Your task to perform on an android device: check android version Image 0: 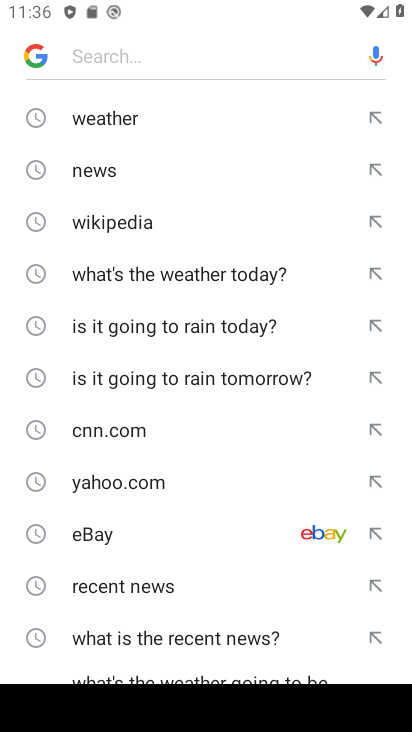
Step 0: press back button
Your task to perform on an android device: check android version Image 1: 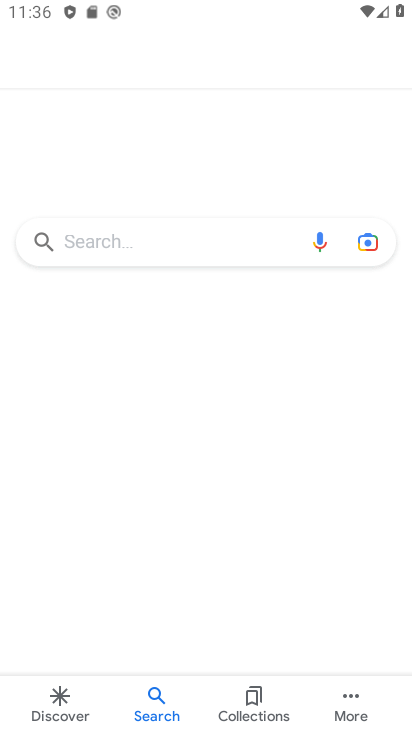
Step 1: press home button
Your task to perform on an android device: check android version Image 2: 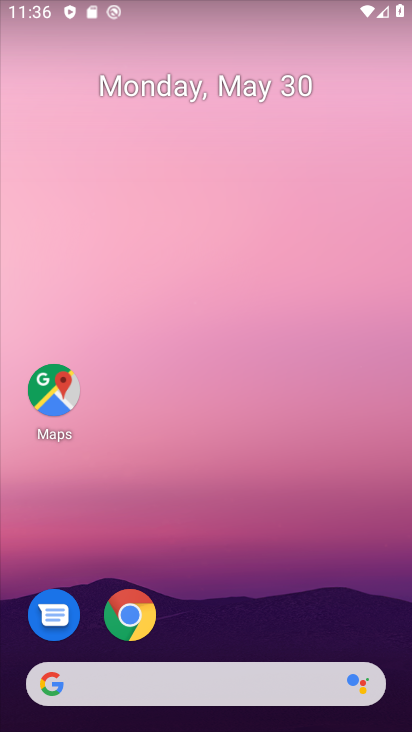
Step 2: drag from (345, 340) to (347, 98)
Your task to perform on an android device: check android version Image 3: 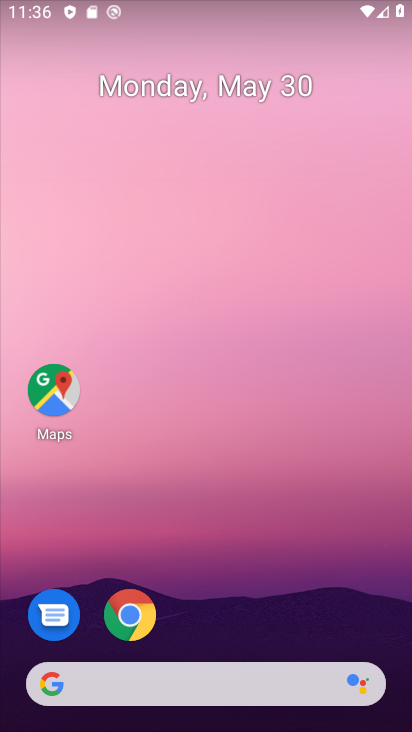
Step 3: drag from (302, 602) to (369, 113)
Your task to perform on an android device: check android version Image 4: 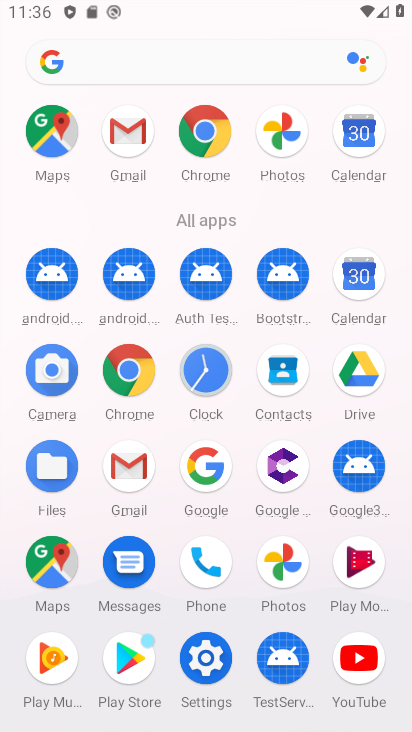
Step 4: click (222, 670)
Your task to perform on an android device: check android version Image 5: 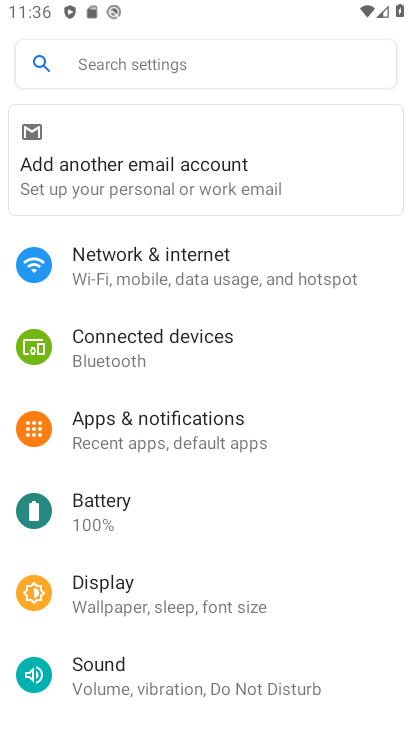
Step 5: drag from (358, 513) to (376, 356)
Your task to perform on an android device: check android version Image 6: 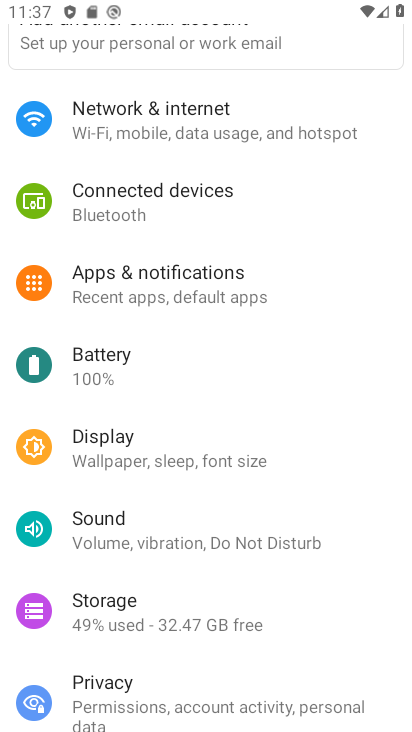
Step 6: drag from (373, 635) to (366, 415)
Your task to perform on an android device: check android version Image 7: 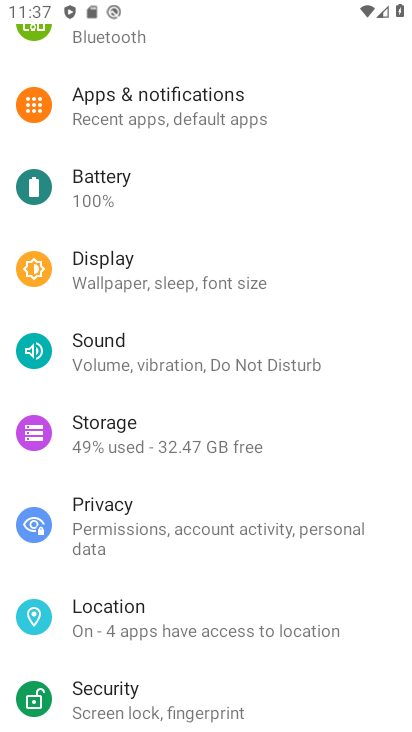
Step 7: drag from (356, 586) to (361, 390)
Your task to perform on an android device: check android version Image 8: 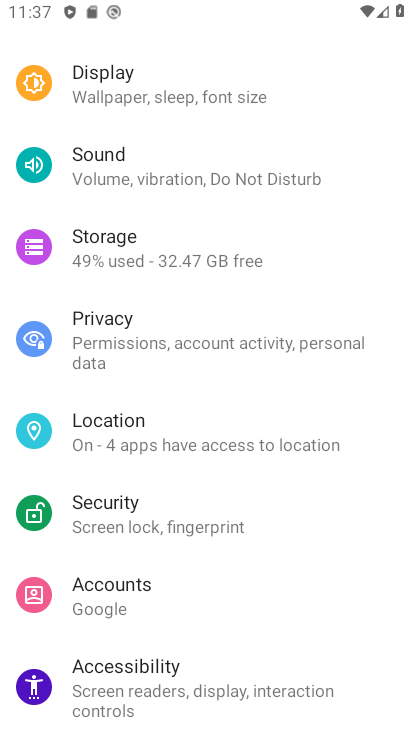
Step 8: drag from (339, 592) to (344, 443)
Your task to perform on an android device: check android version Image 9: 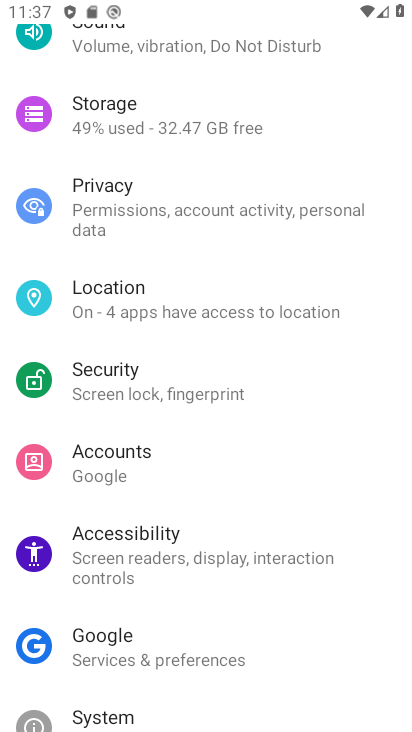
Step 9: drag from (344, 631) to (352, 448)
Your task to perform on an android device: check android version Image 10: 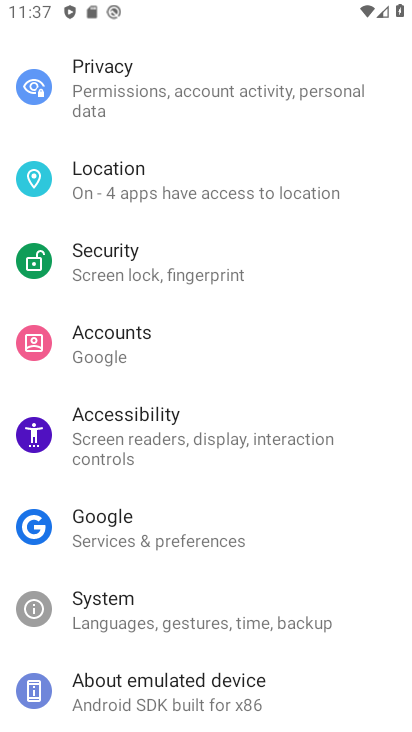
Step 10: drag from (349, 650) to (368, 406)
Your task to perform on an android device: check android version Image 11: 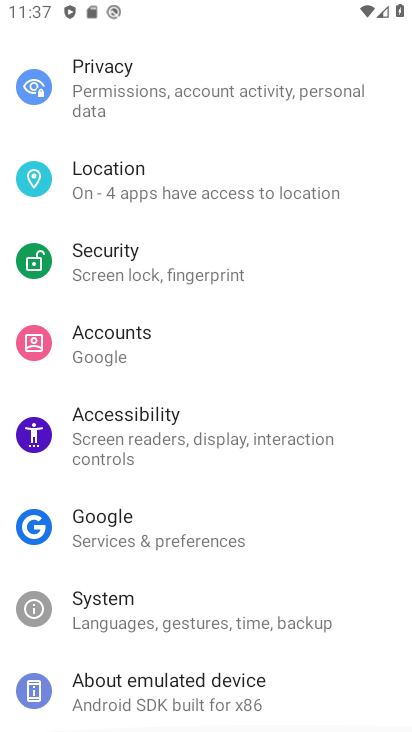
Step 11: drag from (376, 356) to (357, 506)
Your task to perform on an android device: check android version Image 12: 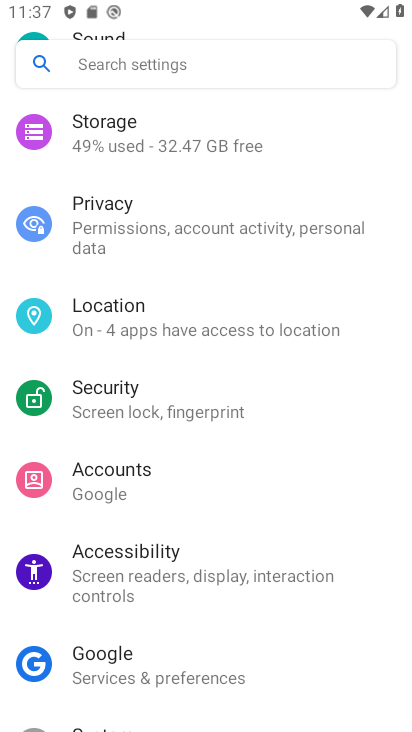
Step 12: drag from (355, 631) to (356, 402)
Your task to perform on an android device: check android version Image 13: 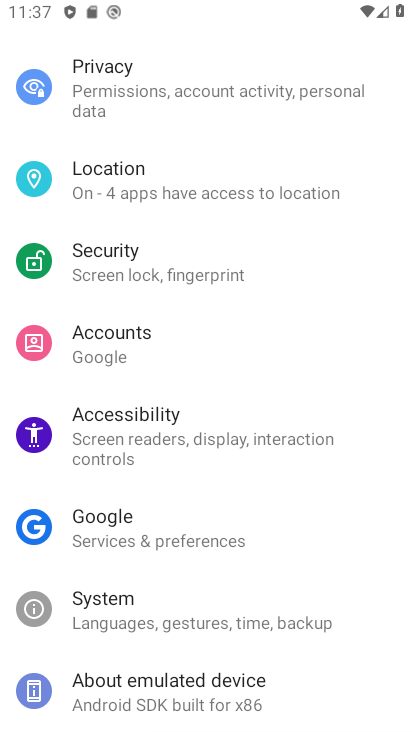
Step 13: click (281, 606)
Your task to perform on an android device: check android version Image 14: 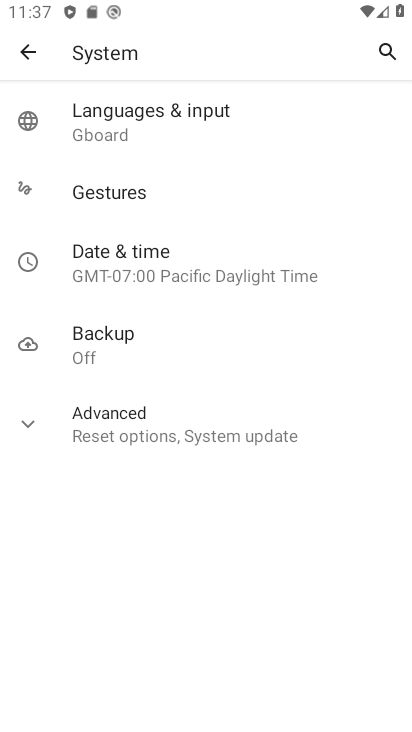
Step 14: click (268, 440)
Your task to perform on an android device: check android version Image 15: 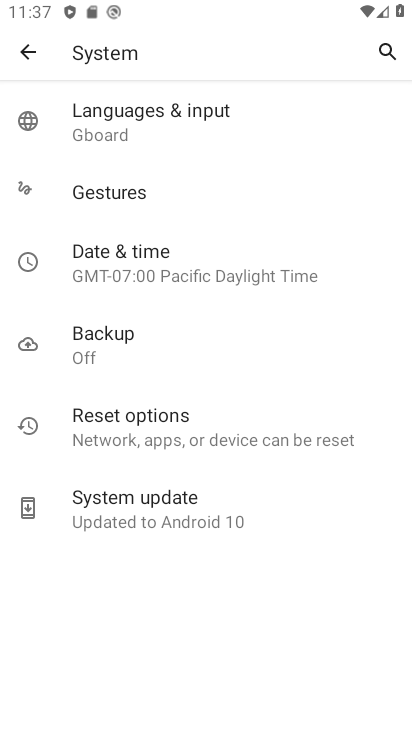
Step 15: click (243, 516)
Your task to perform on an android device: check android version Image 16: 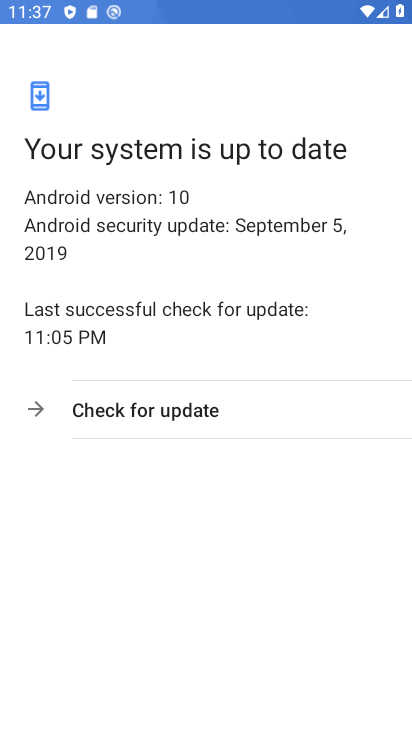
Step 16: task complete